Your task to perform on an android device: What's on my calendar today? Image 0: 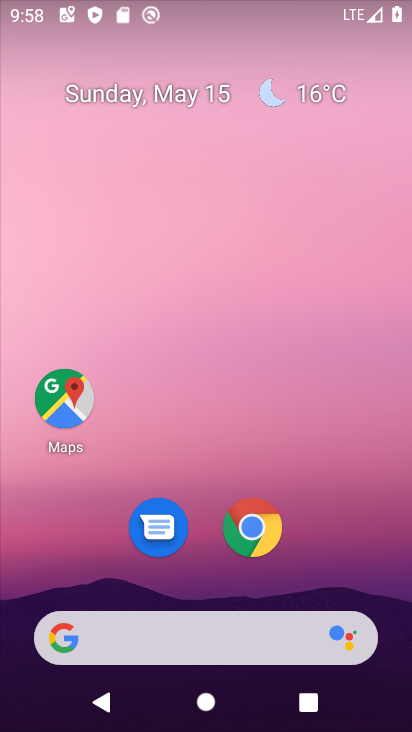
Step 0: drag from (345, 103) to (322, 19)
Your task to perform on an android device: What's on my calendar today? Image 1: 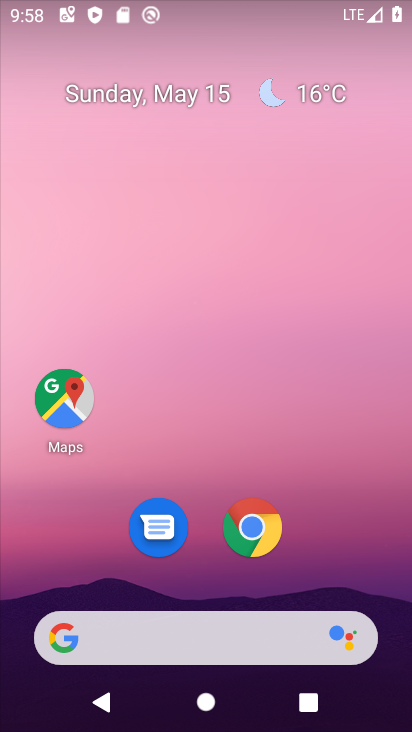
Step 1: drag from (359, 565) to (412, 436)
Your task to perform on an android device: What's on my calendar today? Image 2: 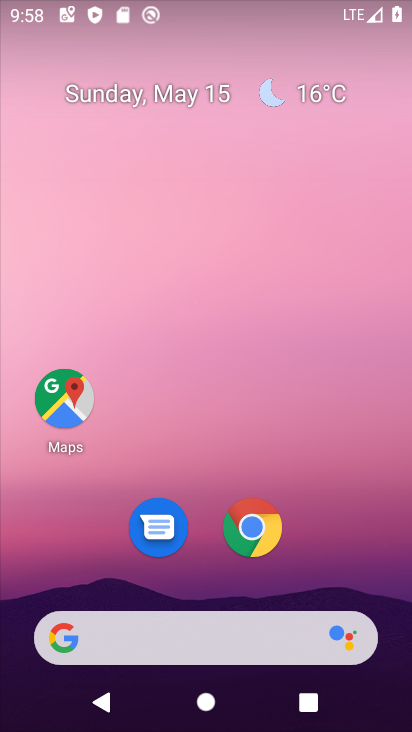
Step 2: click (350, 194)
Your task to perform on an android device: What's on my calendar today? Image 3: 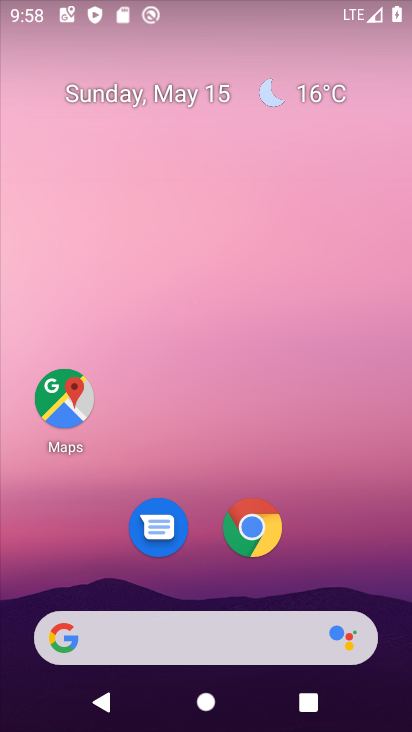
Step 3: drag from (336, 364) to (357, 0)
Your task to perform on an android device: What's on my calendar today? Image 4: 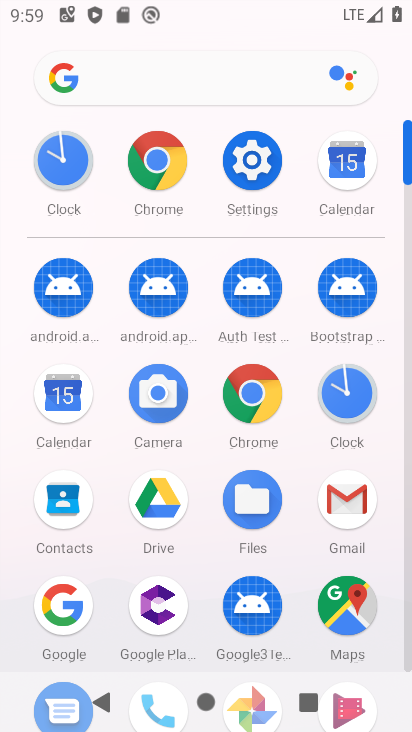
Step 4: click (349, 189)
Your task to perform on an android device: What's on my calendar today? Image 5: 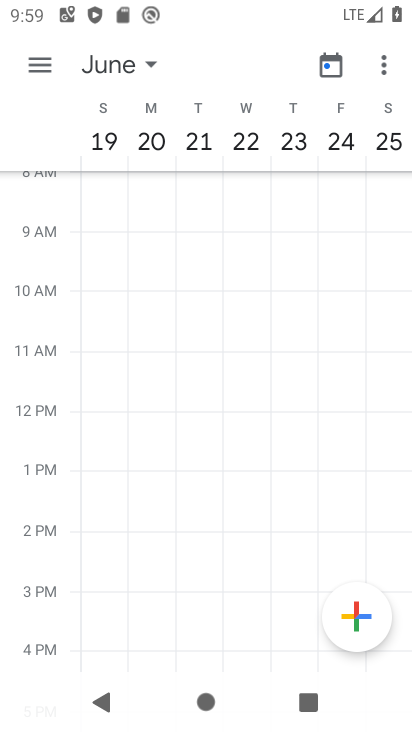
Step 5: click (324, 67)
Your task to perform on an android device: What's on my calendar today? Image 6: 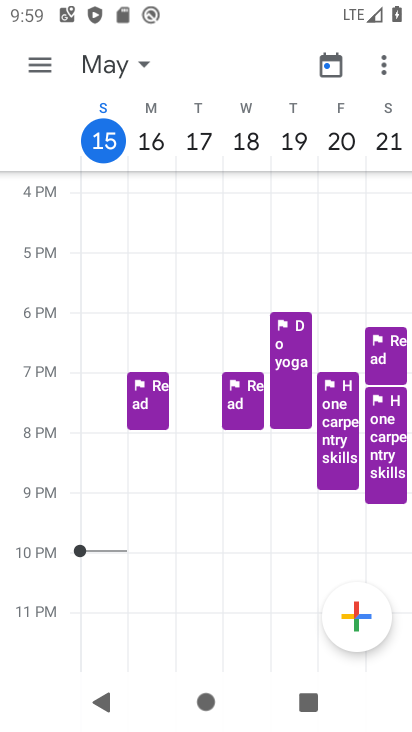
Step 6: click (140, 71)
Your task to perform on an android device: What's on my calendar today? Image 7: 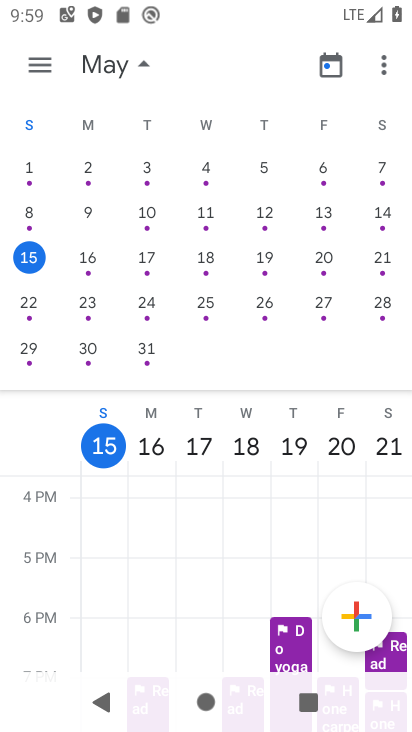
Step 7: click (50, 70)
Your task to perform on an android device: What's on my calendar today? Image 8: 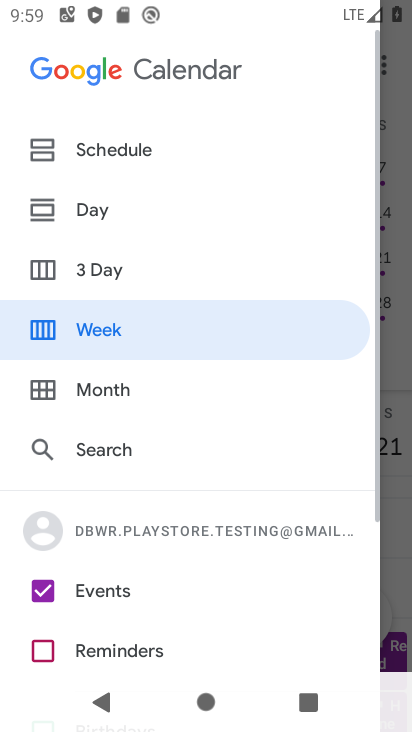
Step 8: click (36, 144)
Your task to perform on an android device: What's on my calendar today? Image 9: 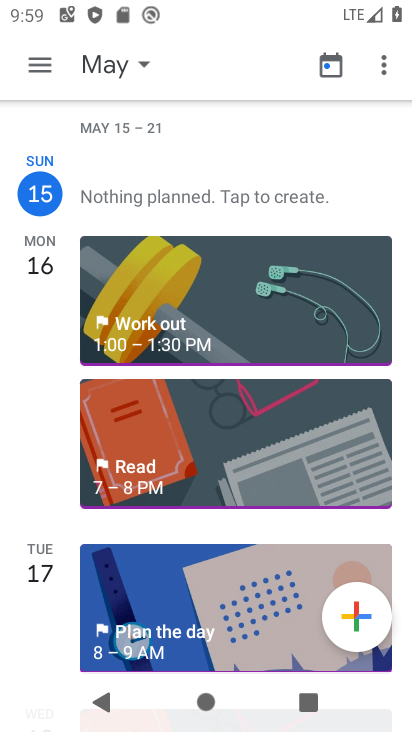
Step 9: click (193, 199)
Your task to perform on an android device: What's on my calendar today? Image 10: 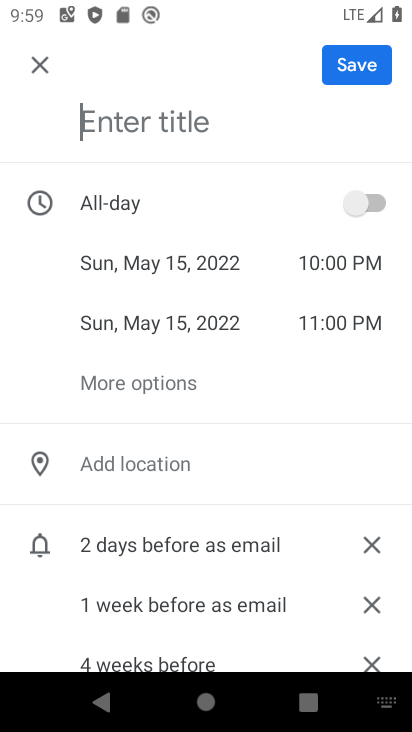
Step 10: task complete